Your task to perform on an android device: Go to Google Image 0: 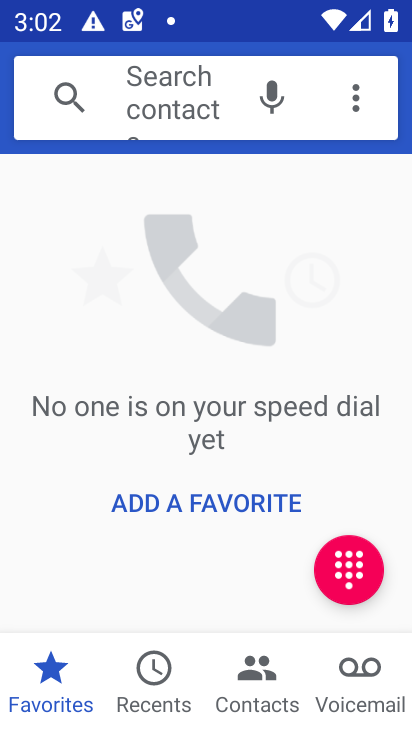
Step 0: press home button
Your task to perform on an android device: Go to Google Image 1: 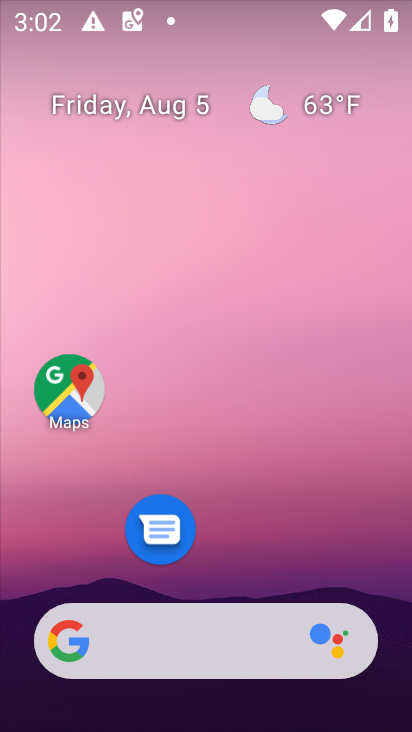
Step 1: drag from (163, 710) to (265, 105)
Your task to perform on an android device: Go to Google Image 2: 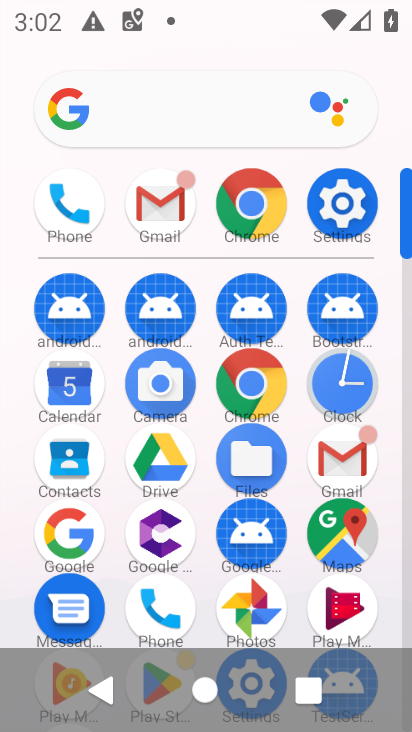
Step 2: click (49, 543)
Your task to perform on an android device: Go to Google Image 3: 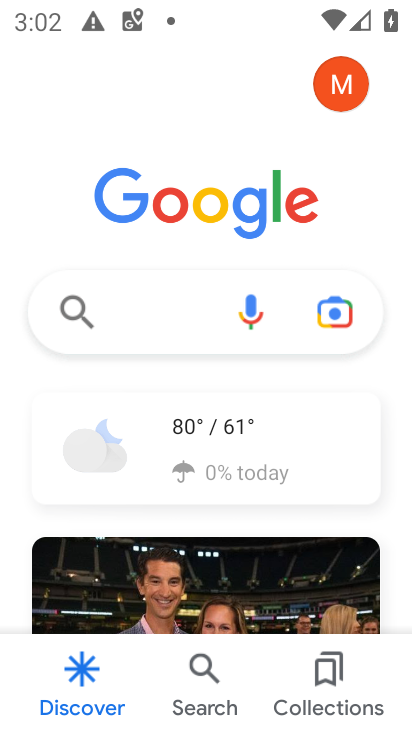
Step 3: task complete